Your task to perform on an android device: Open calendar and show me the third week of next month Image 0: 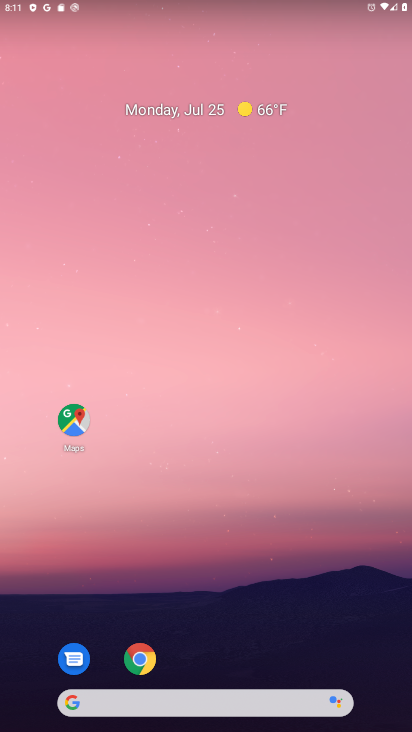
Step 0: drag from (193, 668) to (113, 189)
Your task to perform on an android device: Open calendar and show me the third week of next month Image 1: 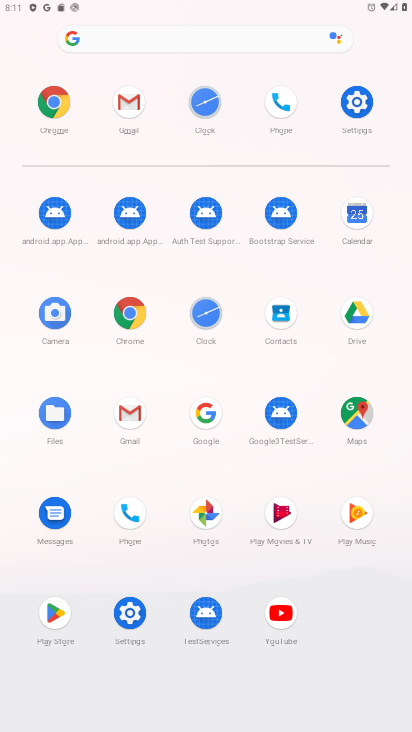
Step 1: click (350, 228)
Your task to perform on an android device: Open calendar and show me the third week of next month Image 2: 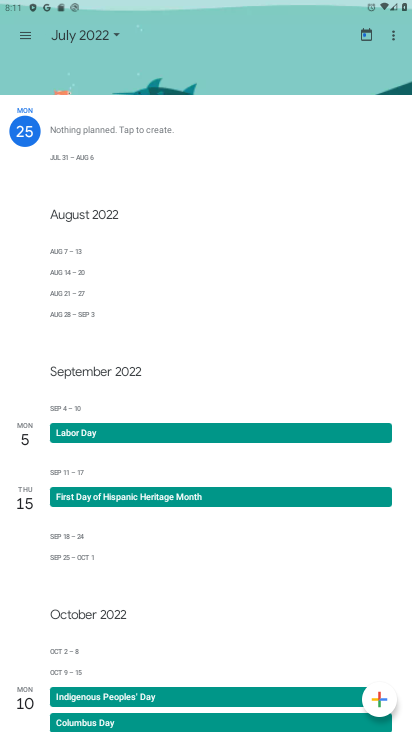
Step 2: click (22, 37)
Your task to perform on an android device: Open calendar and show me the third week of next month Image 3: 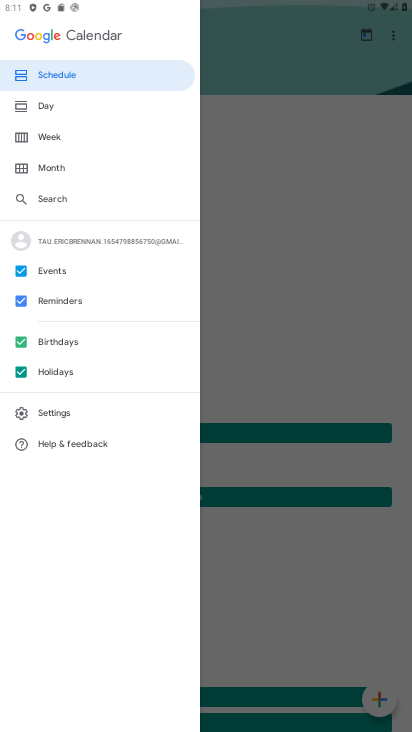
Step 3: click (39, 125)
Your task to perform on an android device: Open calendar and show me the third week of next month Image 4: 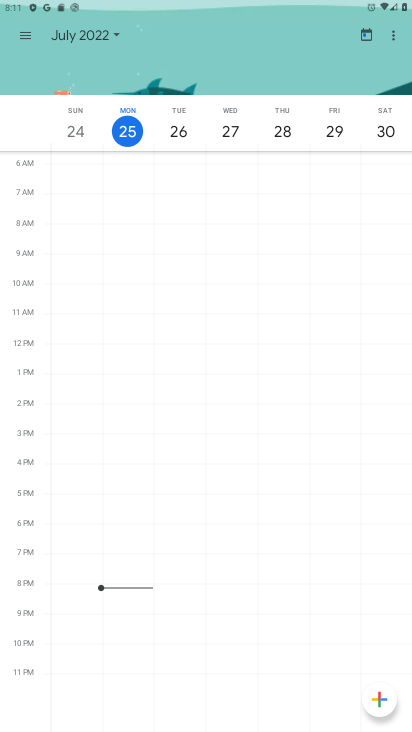
Step 4: task complete